Your task to perform on an android device: Open accessibility settings Image 0: 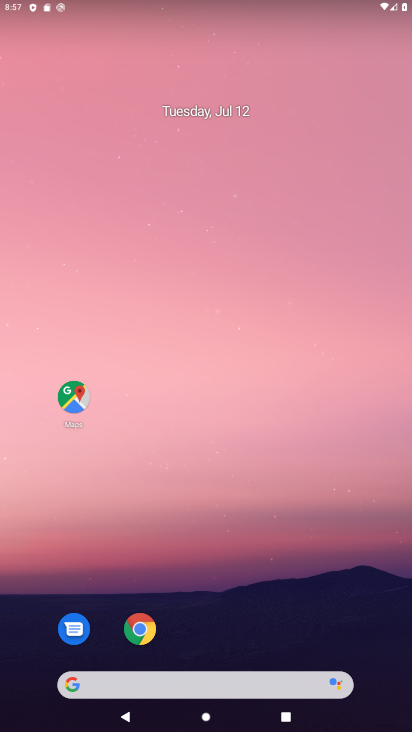
Step 0: drag from (347, 507) to (275, 0)
Your task to perform on an android device: Open accessibility settings Image 1: 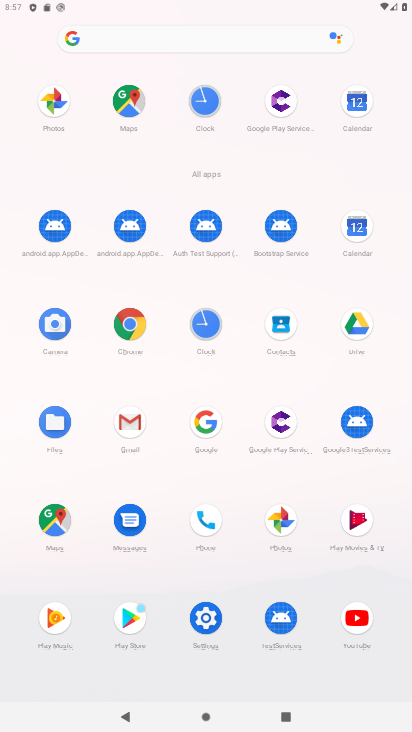
Step 1: click (208, 604)
Your task to perform on an android device: Open accessibility settings Image 2: 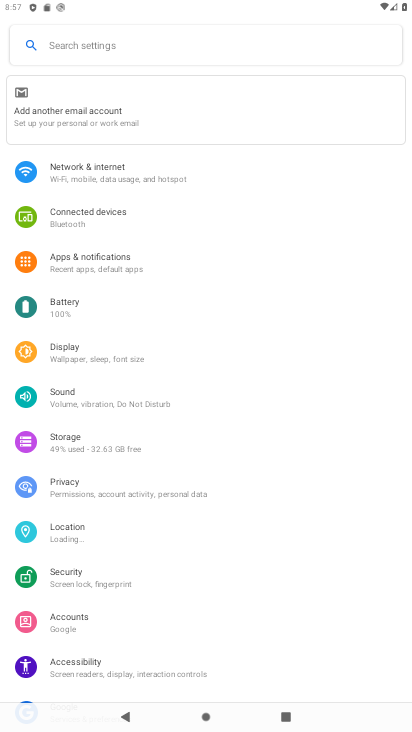
Step 2: click (106, 663)
Your task to perform on an android device: Open accessibility settings Image 3: 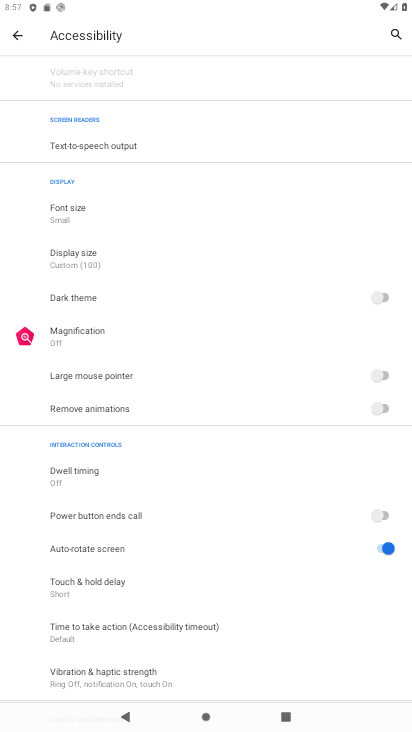
Step 3: task complete